Your task to perform on an android device: Clear the cart on amazon. Search for macbook pro 15 inch on amazon, select the first entry, add it to the cart, then select checkout. Image 0: 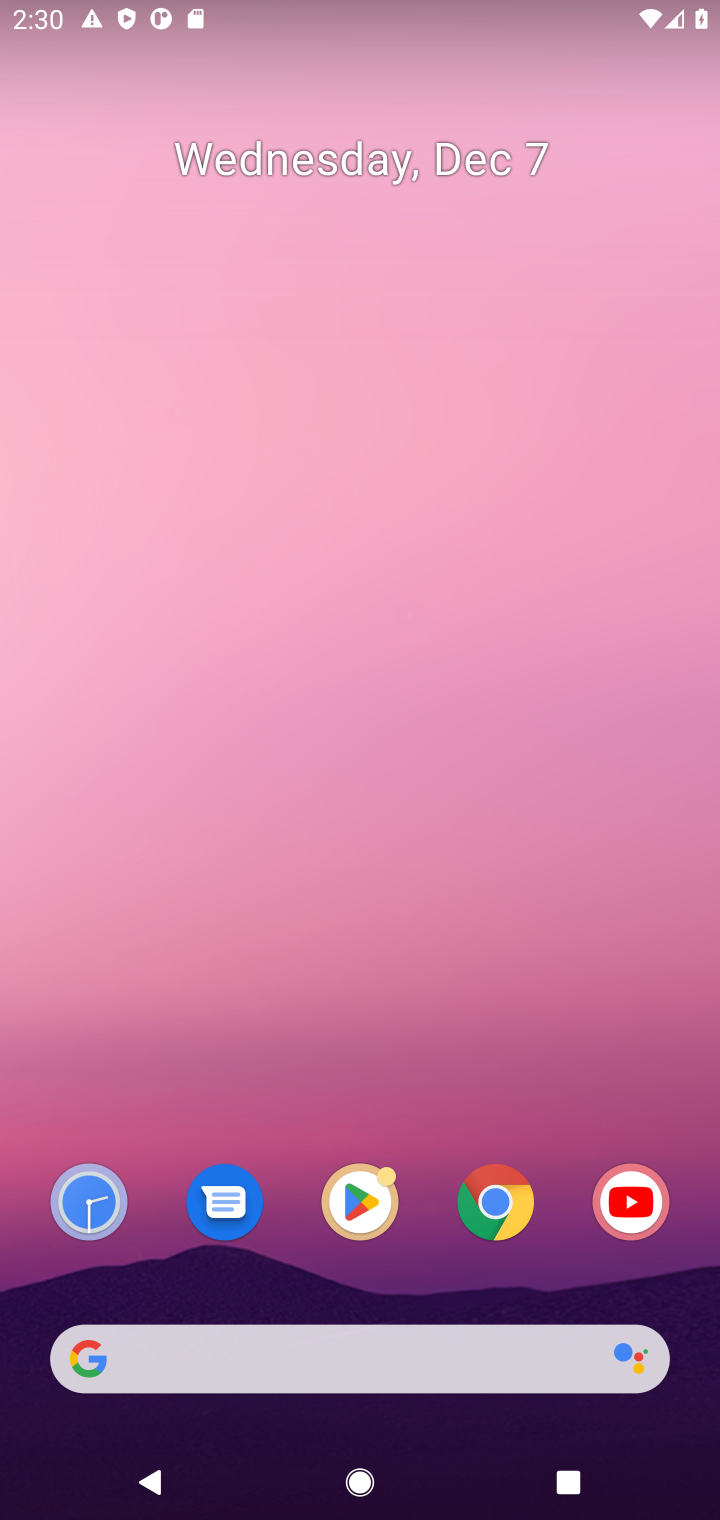
Step 0: click (487, 1203)
Your task to perform on an android device: Clear the cart on amazon. Search for macbook pro 15 inch on amazon, select the first entry, add it to the cart, then select checkout. Image 1: 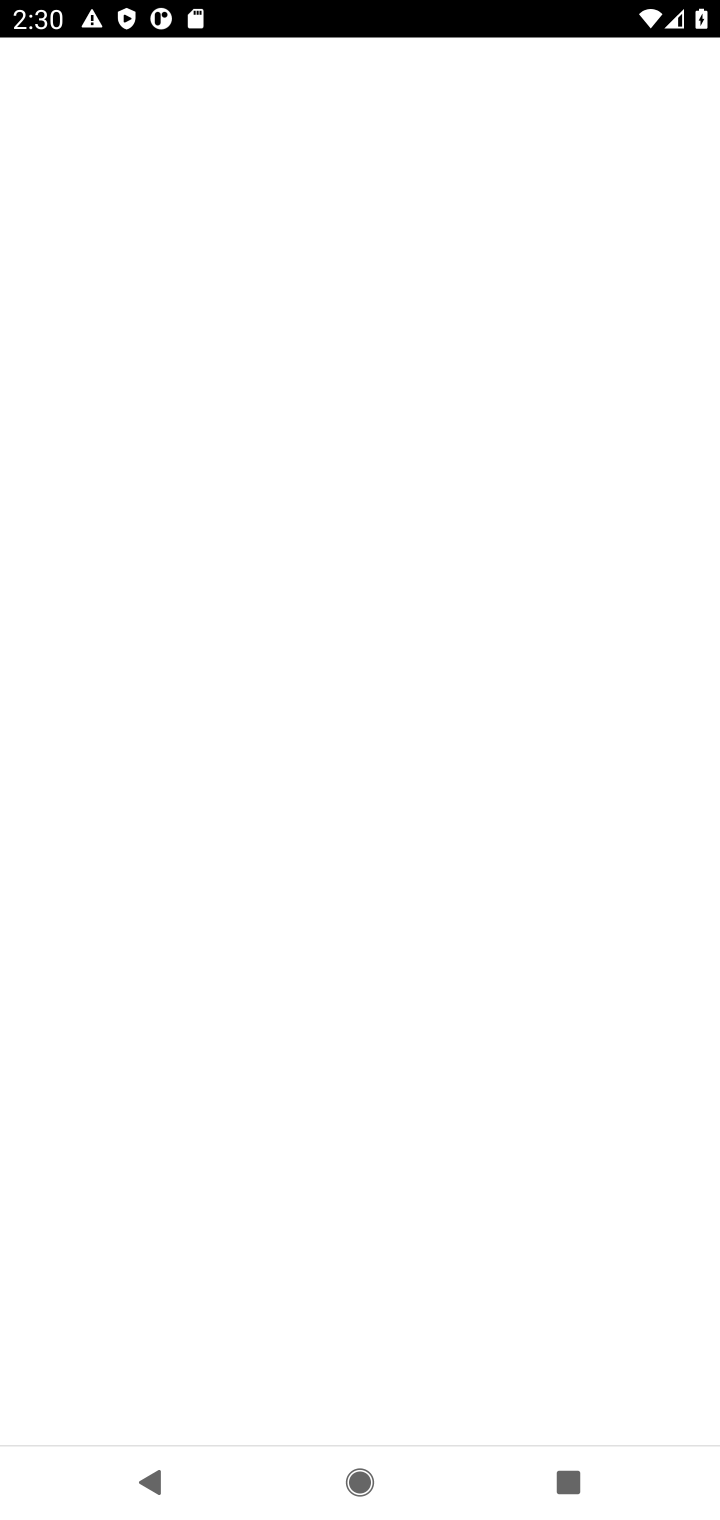
Step 1: press home button
Your task to perform on an android device: Clear the cart on amazon. Search for macbook pro 15 inch on amazon, select the first entry, add it to the cart, then select checkout. Image 2: 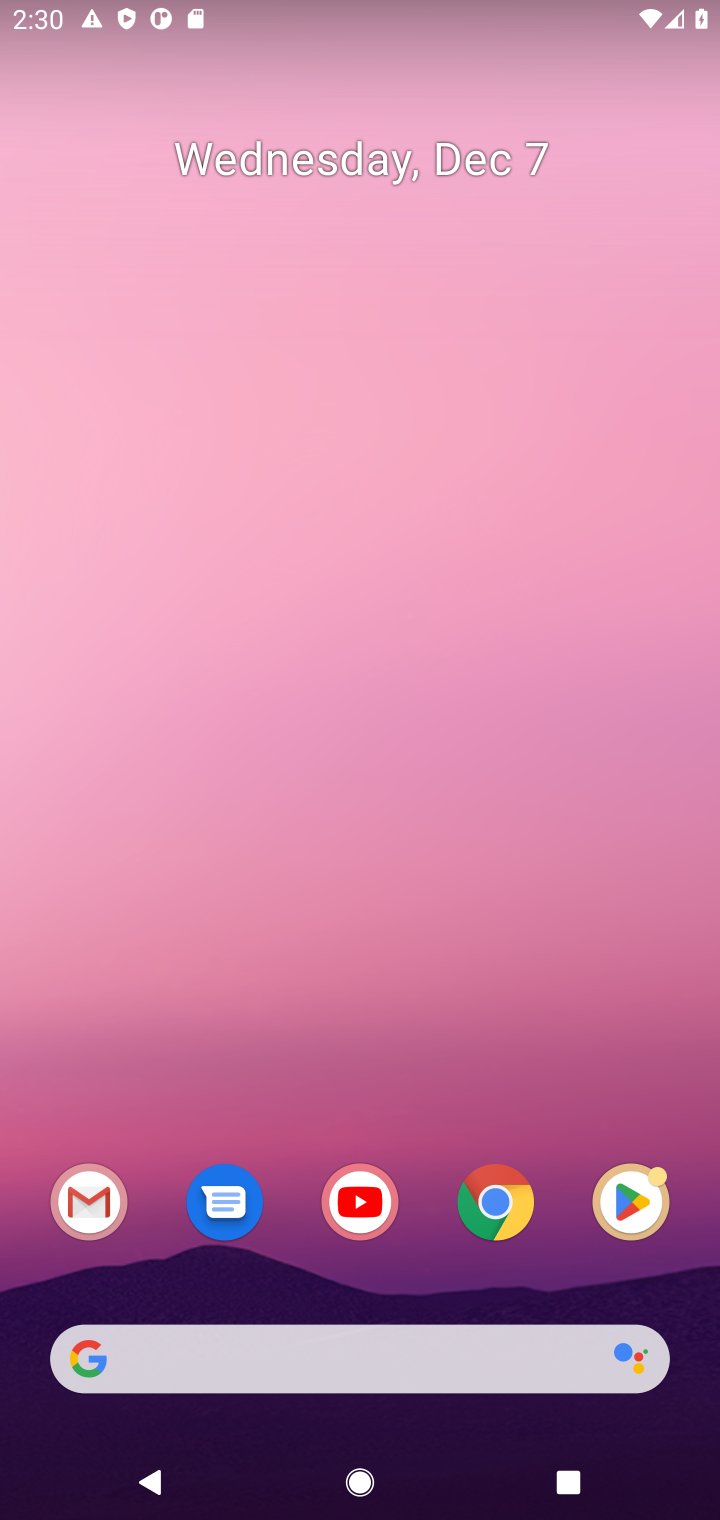
Step 2: click (77, 1361)
Your task to perform on an android device: Clear the cart on amazon. Search for macbook pro 15 inch on amazon, select the first entry, add it to the cart, then select checkout. Image 3: 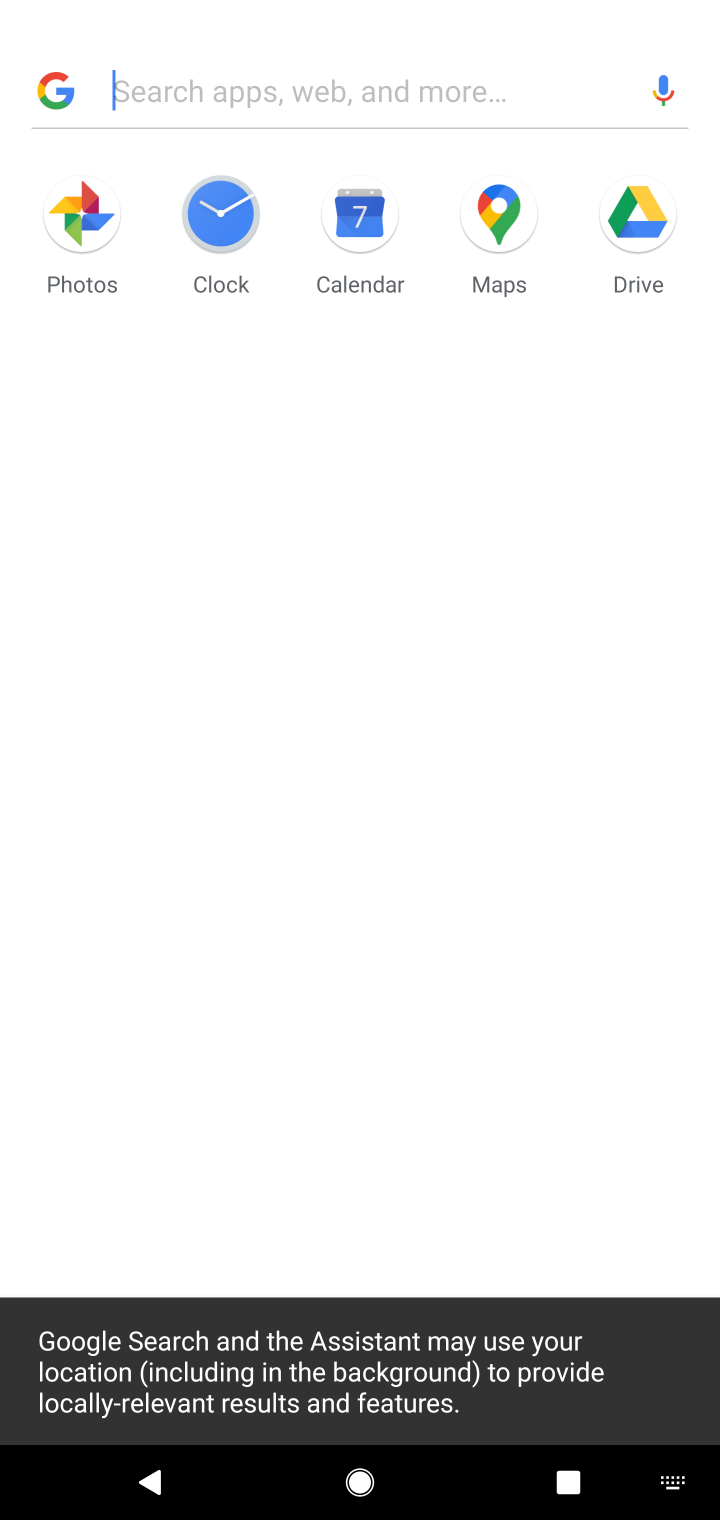
Step 3: type "amazon"
Your task to perform on an android device: Clear the cart on amazon. Search for macbook pro 15 inch on amazon, select the first entry, add it to the cart, then select checkout. Image 4: 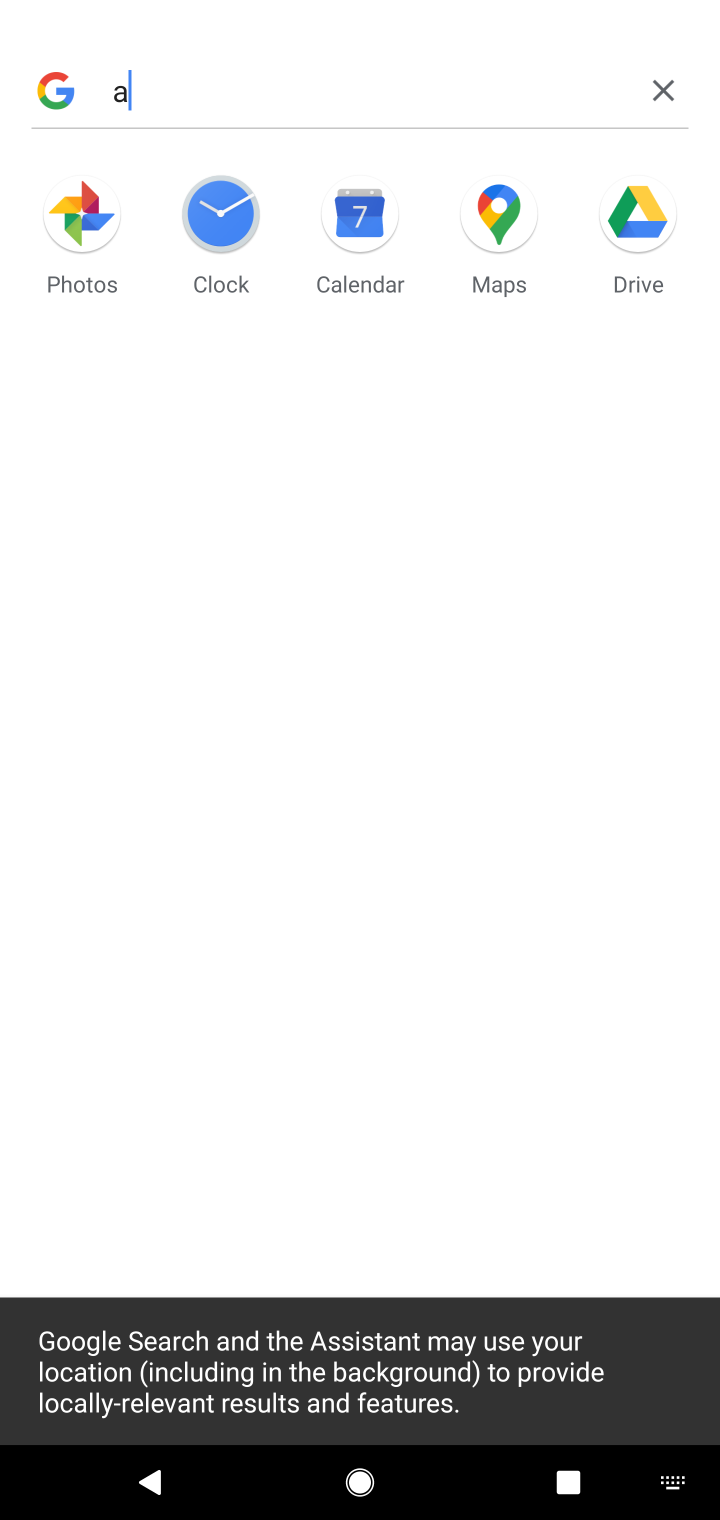
Step 4: task complete